Your task to perform on an android device: Open the phone app and click the voicemail tab. Image 0: 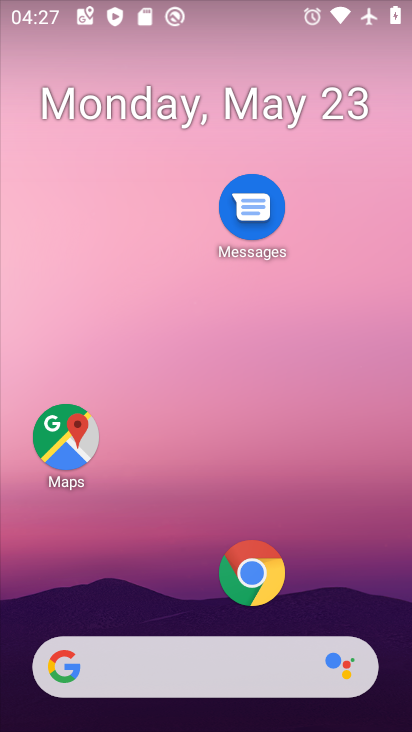
Step 0: drag from (286, 656) to (388, 10)
Your task to perform on an android device: Open the phone app and click the voicemail tab. Image 1: 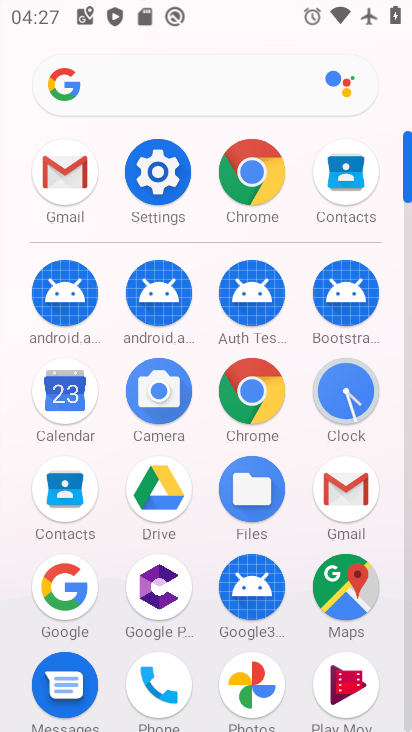
Step 1: click (166, 675)
Your task to perform on an android device: Open the phone app and click the voicemail tab. Image 2: 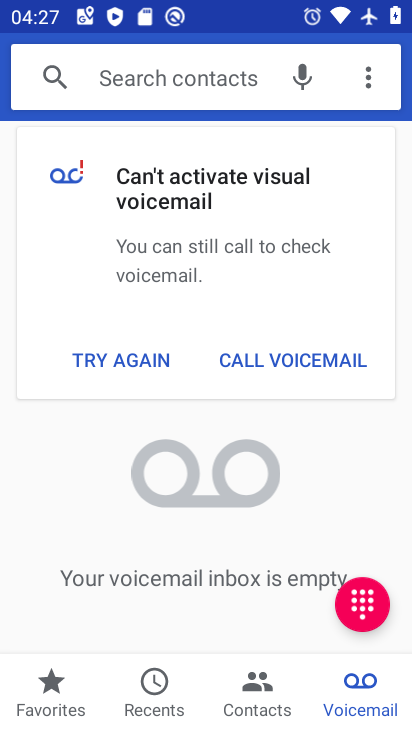
Step 2: click (359, 695)
Your task to perform on an android device: Open the phone app and click the voicemail tab. Image 3: 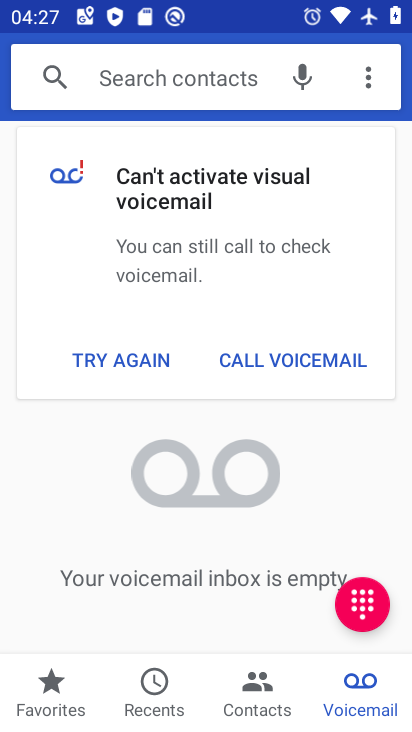
Step 3: task complete